Your task to perform on an android device: uninstall "Upside-Cash back on gas & food" Image 0: 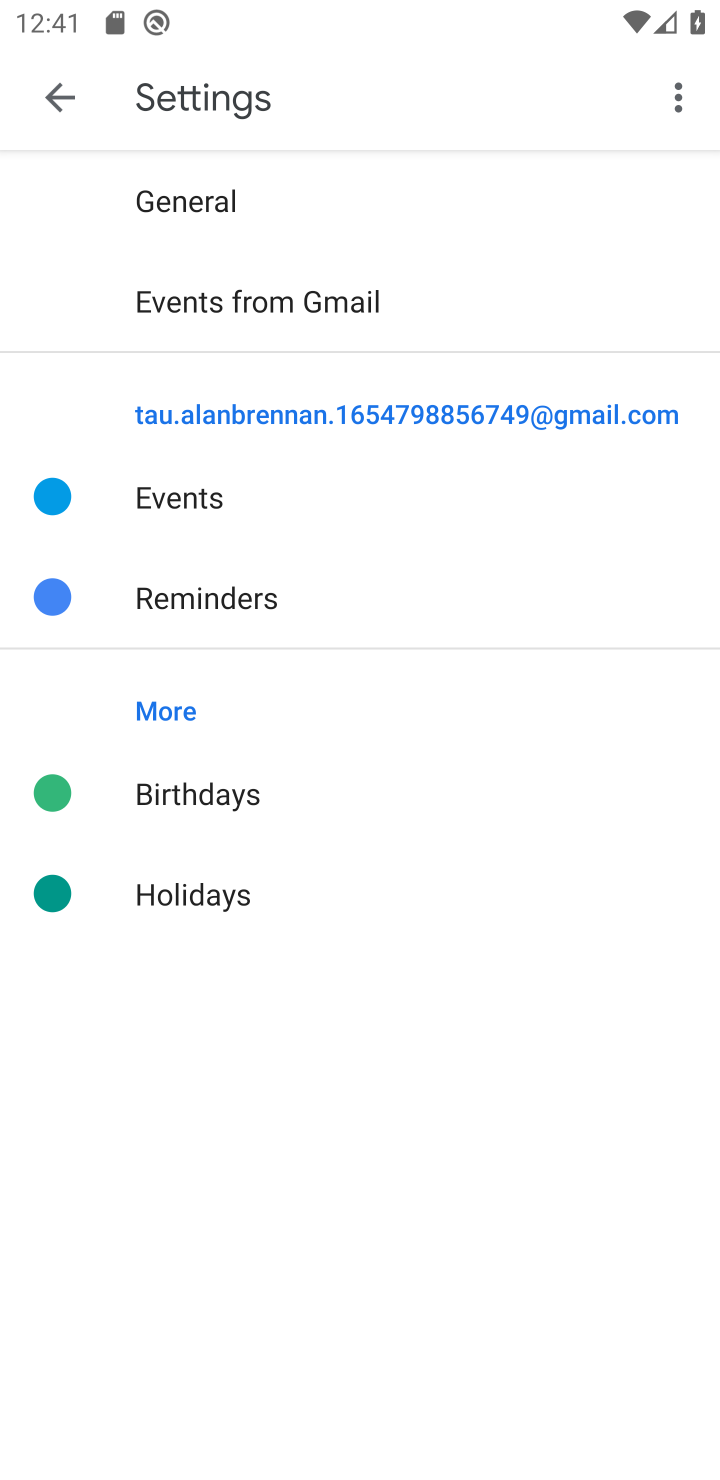
Step 0: press home button
Your task to perform on an android device: uninstall "Upside-Cash back on gas & food" Image 1: 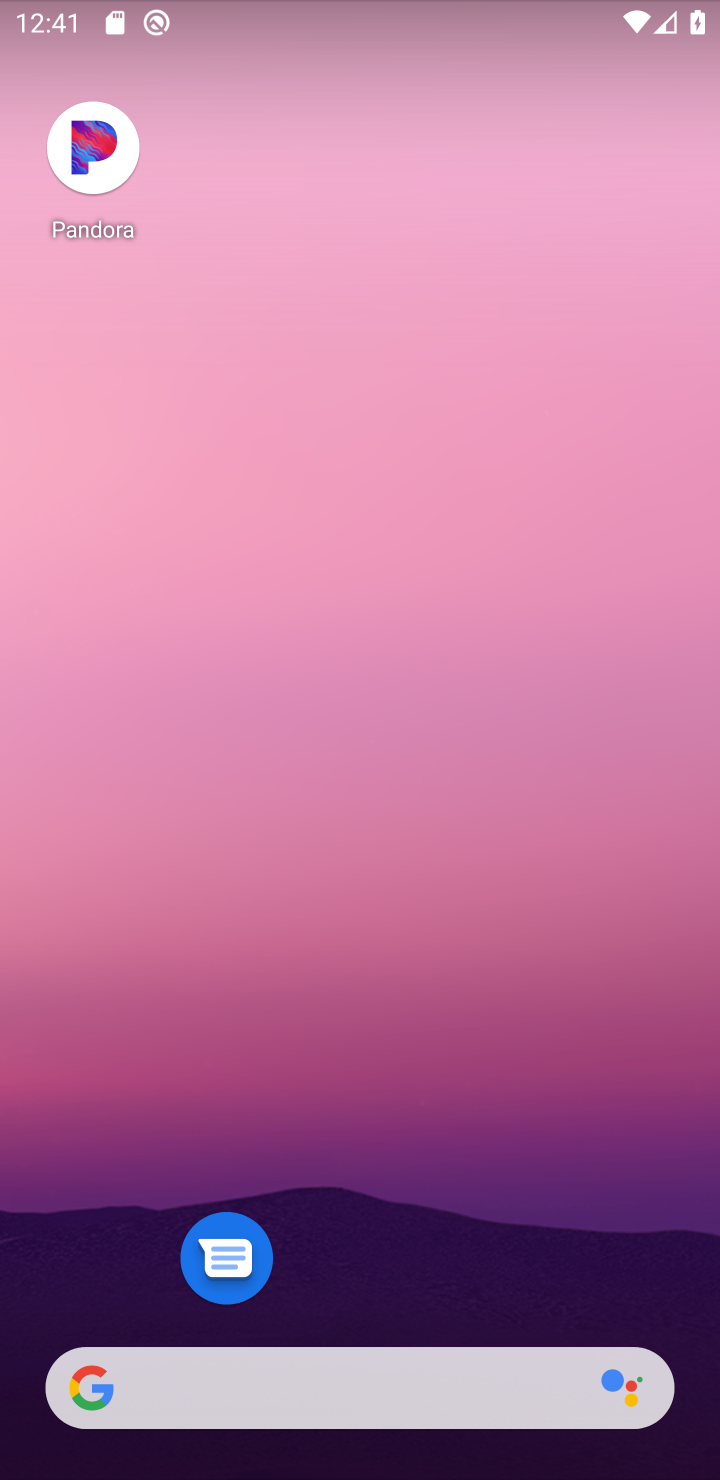
Step 1: drag from (417, 1291) to (371, 458)
Your task to perform on an android device: uninstall "Upside-Cash back on gas & food" Image 2: 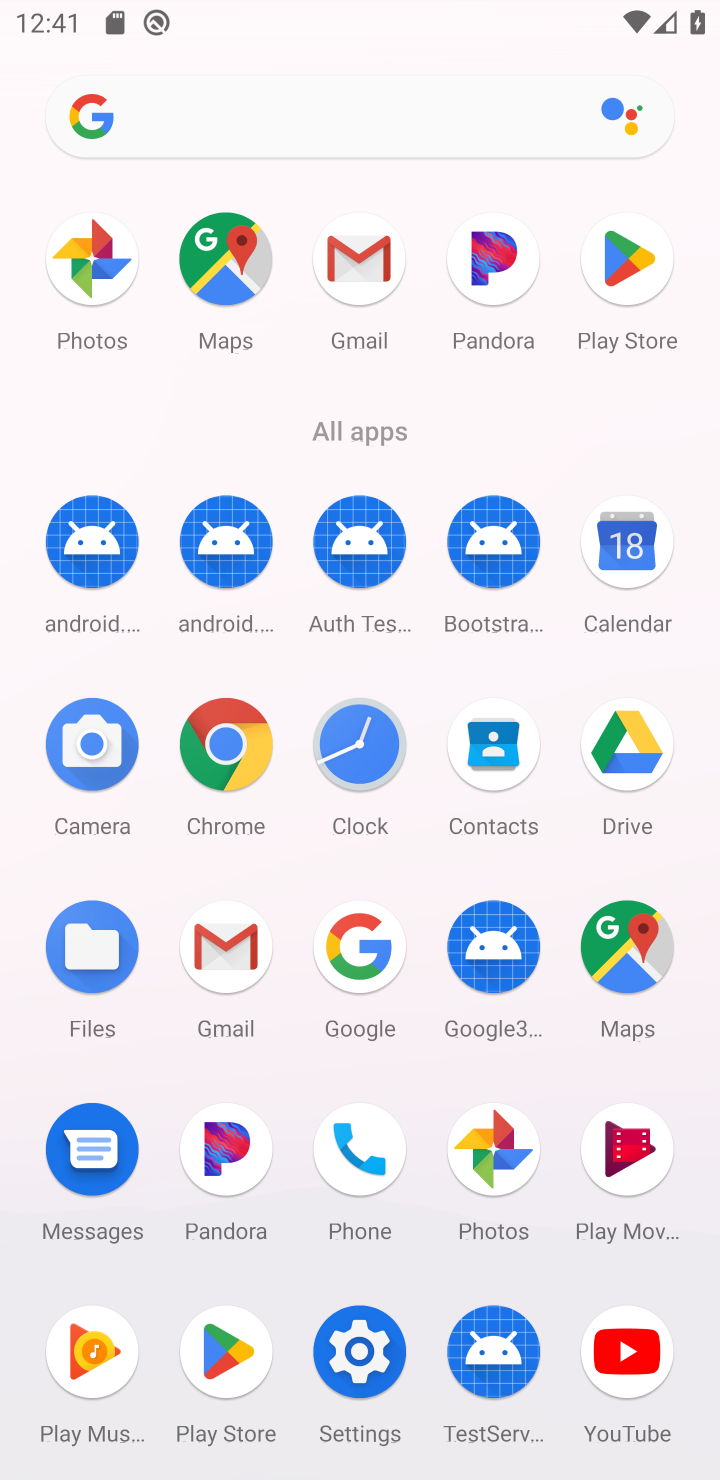
Step 2: click (628, 249)
Your task to perform on an android device: uninstall "Upside-Cash back on gas & food" Image 3: 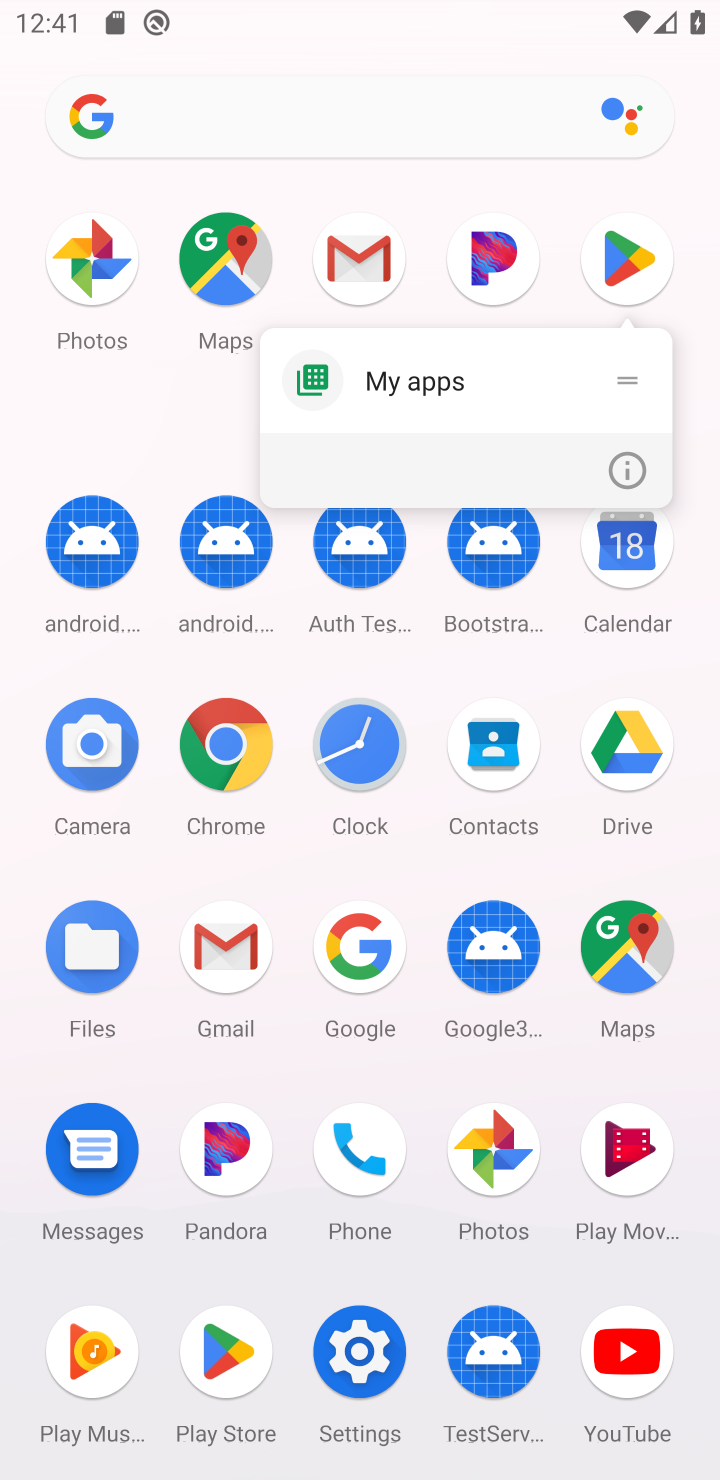
Step 3: click (628, 249)
Your task to perform on an android device: uninstall "Upside-Cash back on gas & food" Image 4: 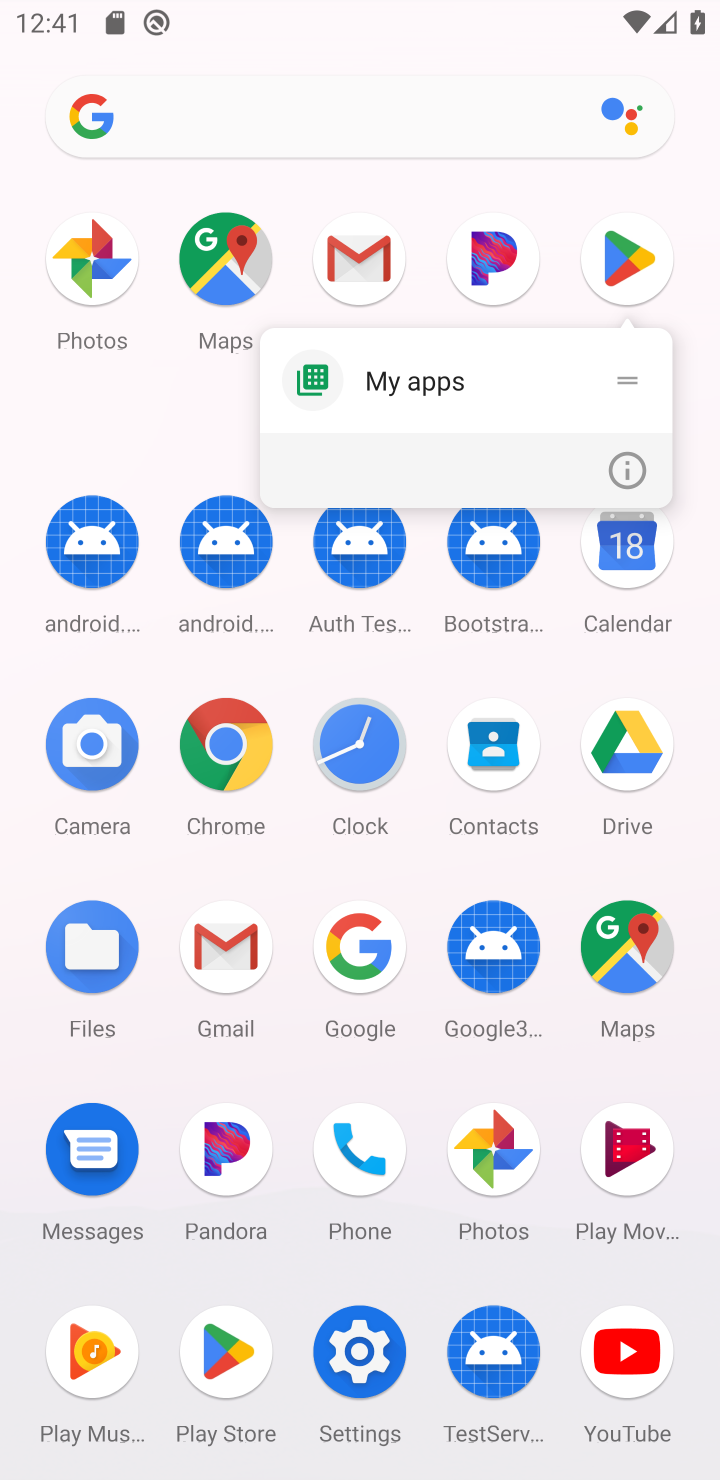
Step 4: click (628, 298)
Your task to perform on an android device: uninstall "Upside-Cash back on gas & food" Image 5: 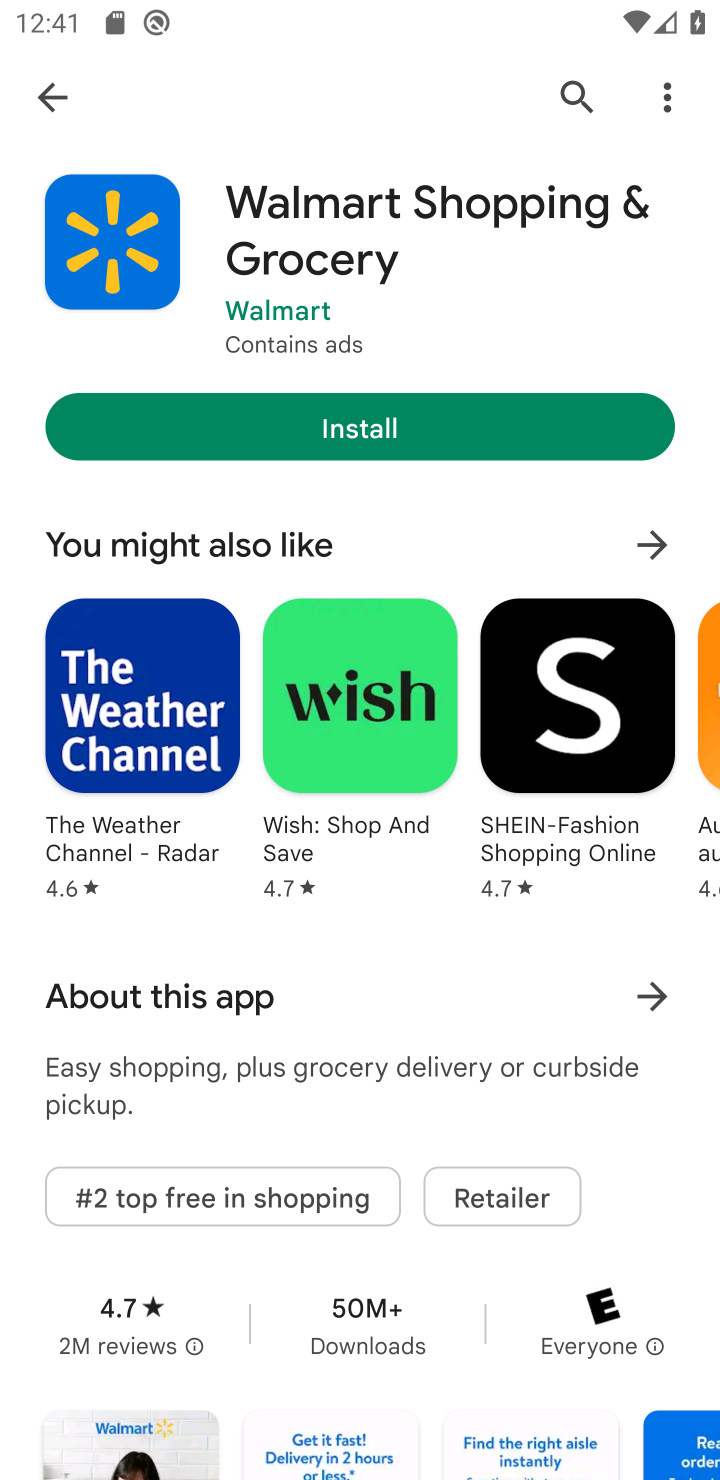
Step 5: click (61, 87)
Your task to perform on an android device: uninstall "Upside-Cash back on gas & food" Image 6: 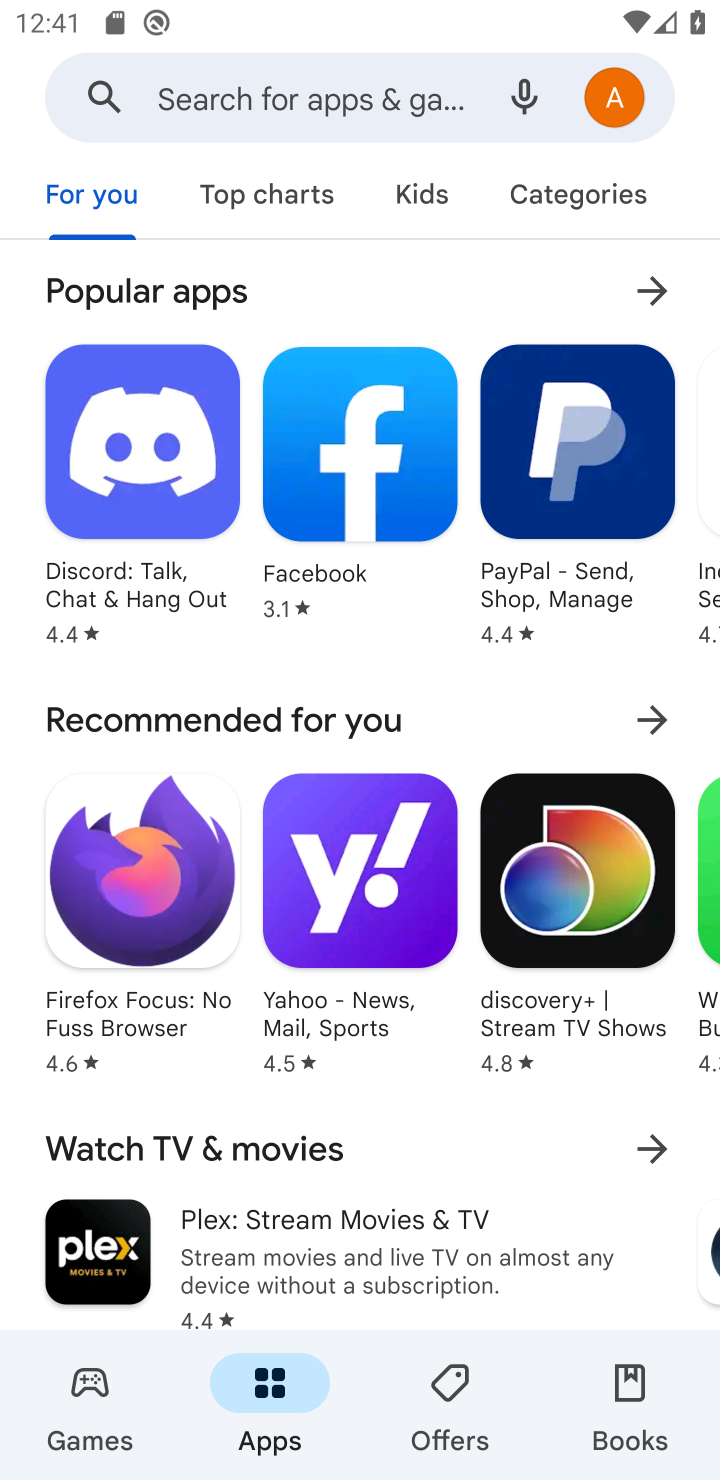
Step 6: click (350, 74)
Your task to perform on an android device: uninstall "Upside-Cash back on gas & food" Image 7: 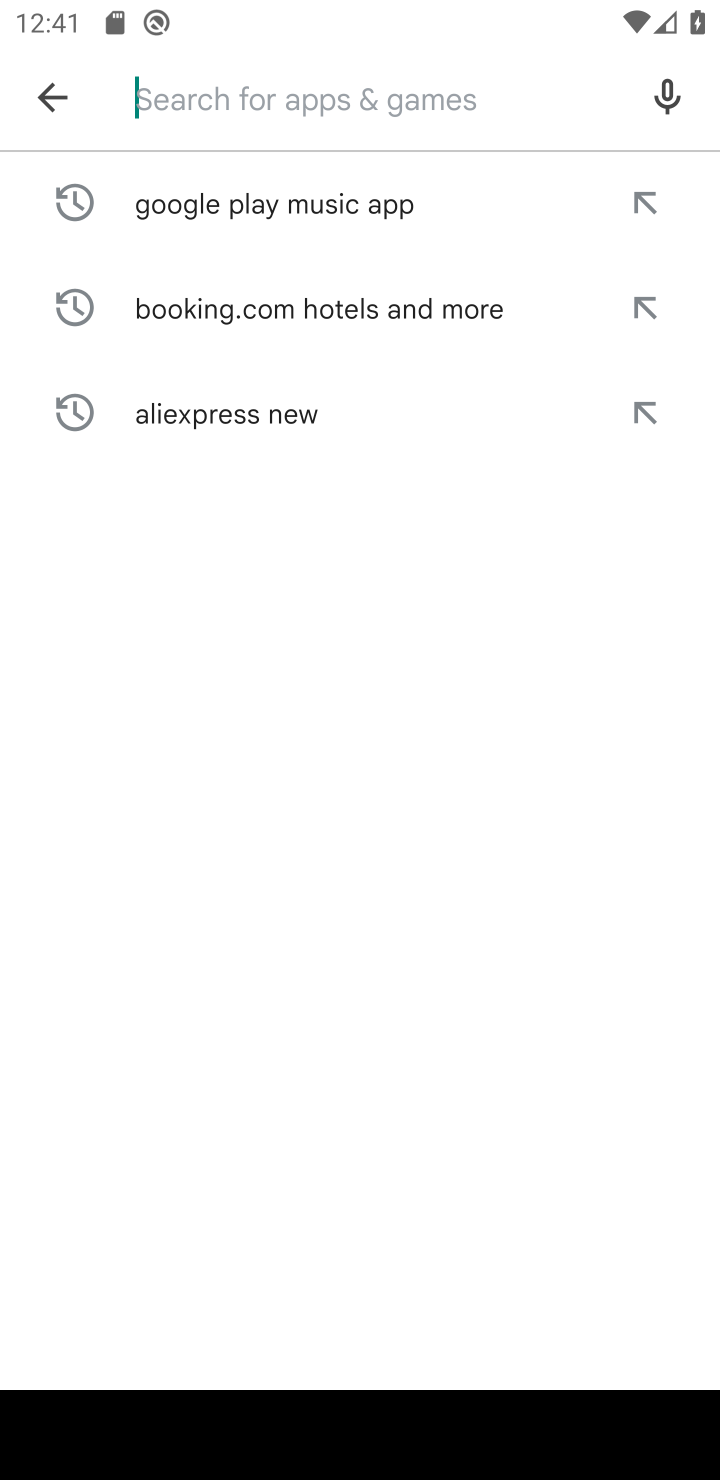
Step 7: type "Upside-Cash back on gas & food "
Your task to perform on an android device: uninstall "Upside-Cash back on gas & food" Image 8: 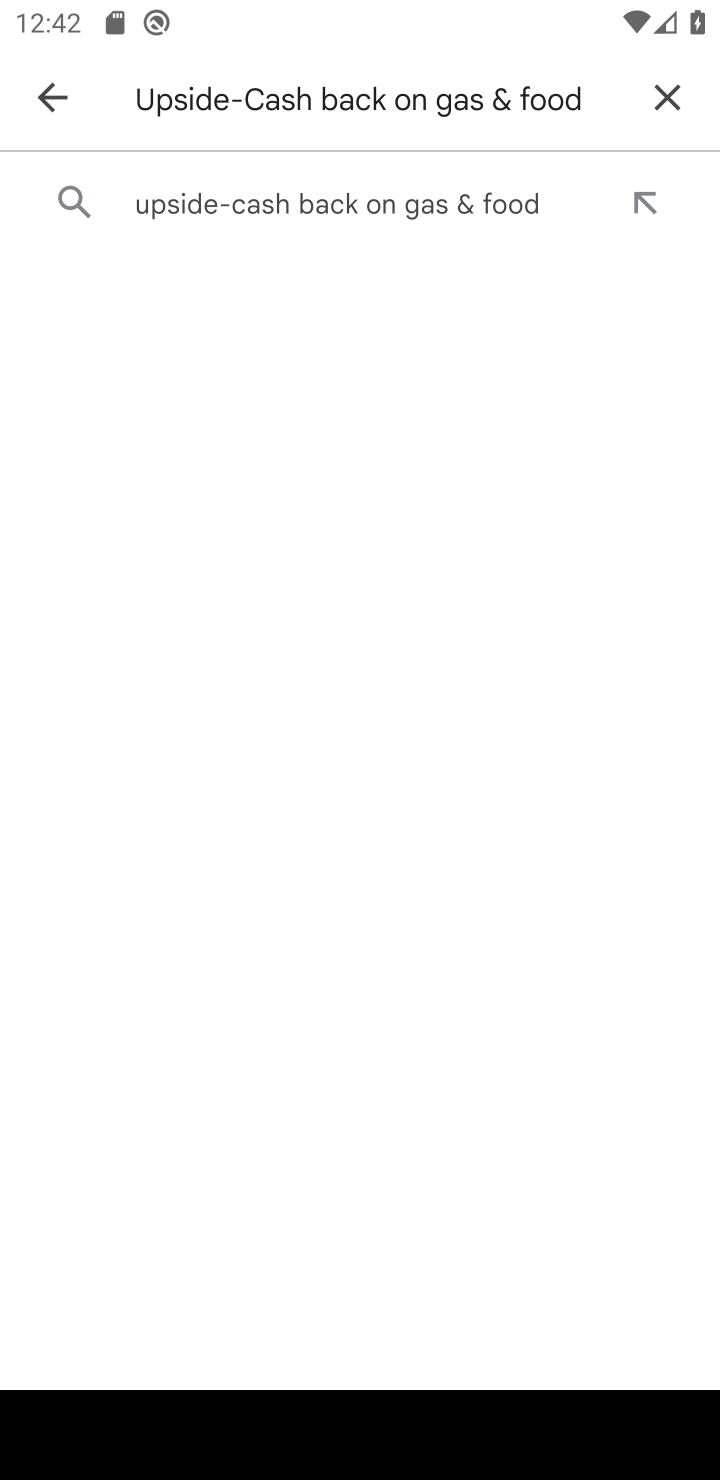
Step 8: click (137, 202)
Your task to perform on an android device: uninstall "Upside-Cash back on gas & food" Image 9: 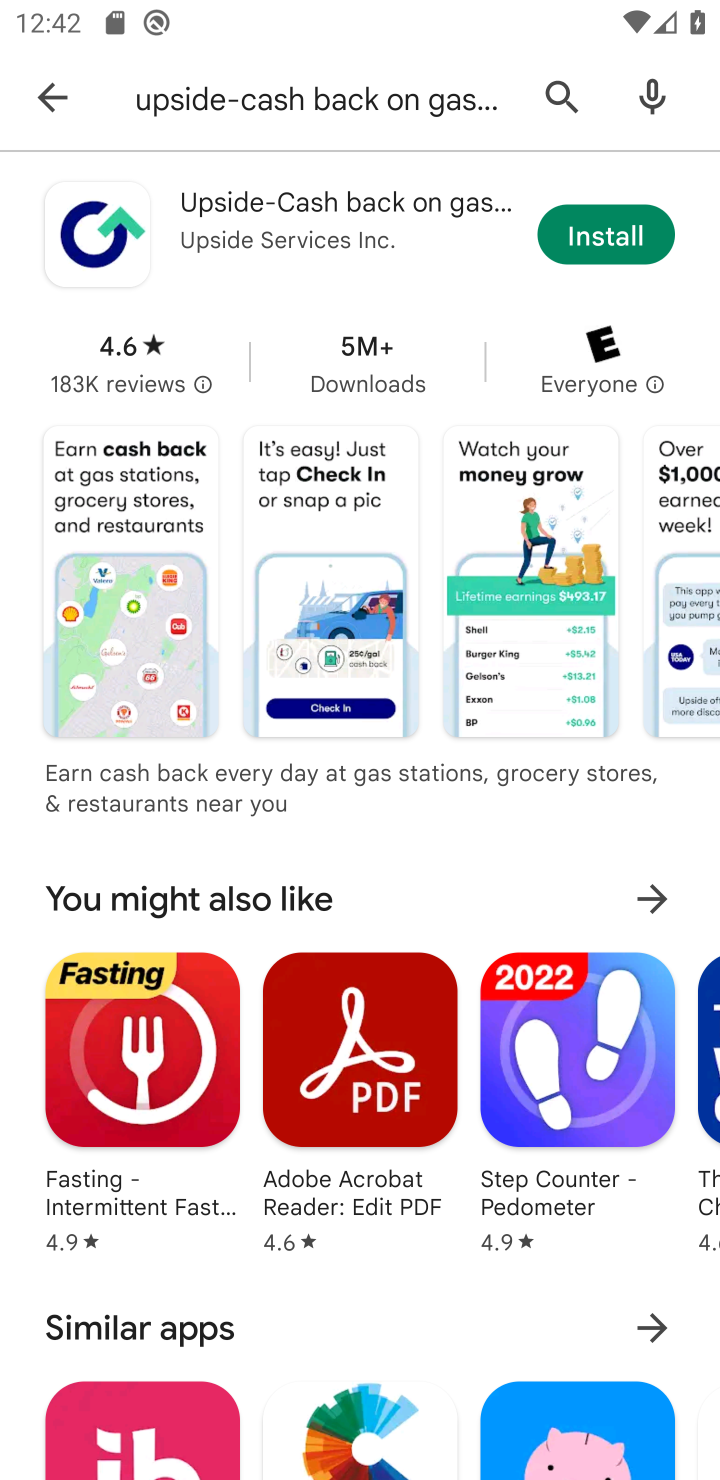
Step 9: task complete